Your task to perform on an android device: refresh tabs in the chrome app Image 0: 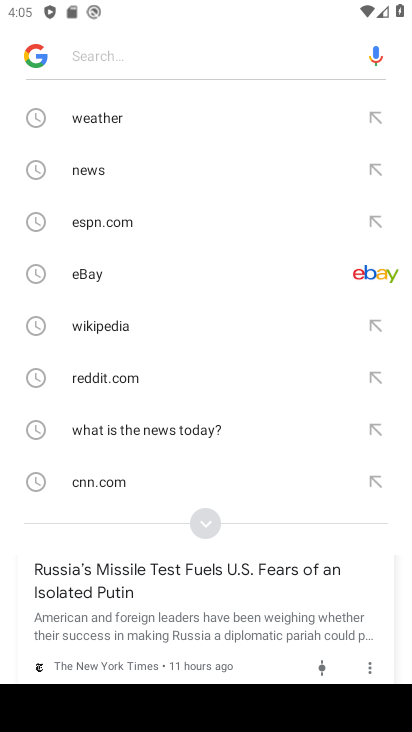
Step 0: press home button
Your task to perform on an android device: refresh tabs in the chrome app Image 1: 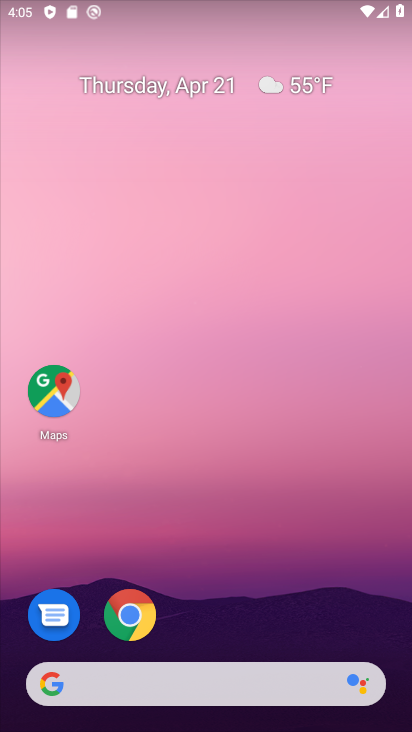
Step 1: click (116, 599)
Your task to perform on an android device: refresh tabs in the chrome app Image 2: 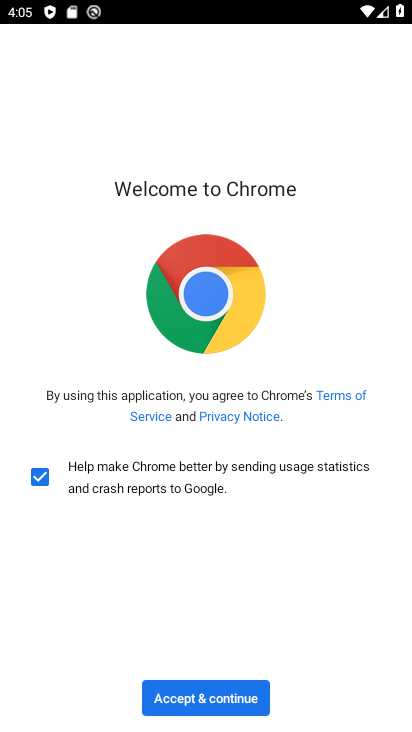
Step 2: click (206, 692)
Your task to perform on an android device: refresh tabs in the chrome app Image 3: 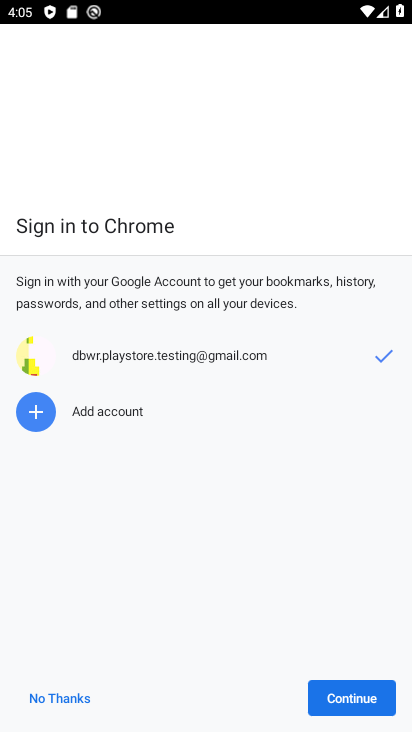
Step 3: click (354, 696)
Your task to perform on an android device: refresh tabs in the chrome app Image 4: 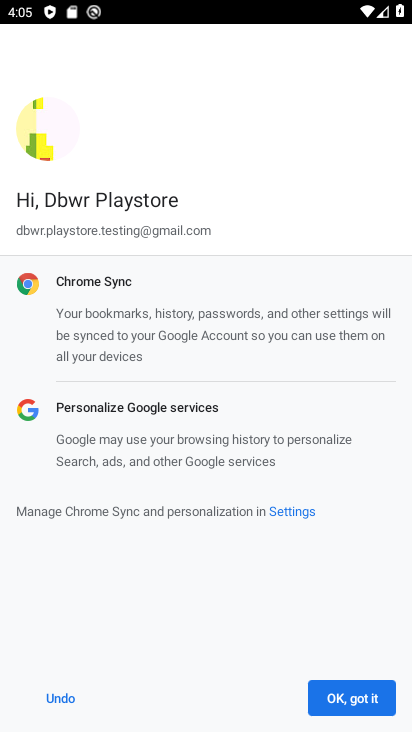
Step 4: click (359, 694)
Your task to perform on an android device: refresh tabs in the chrome app Image 5: 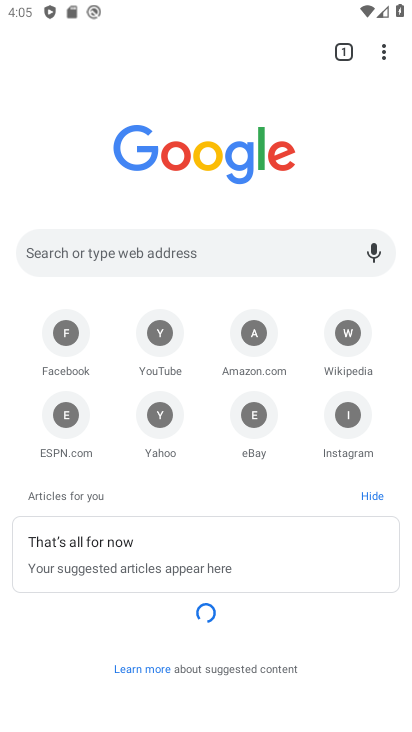
Step 5: click (378, 50)
Your task to perform on an android device: refresh tabs in the chrome app Image 6: 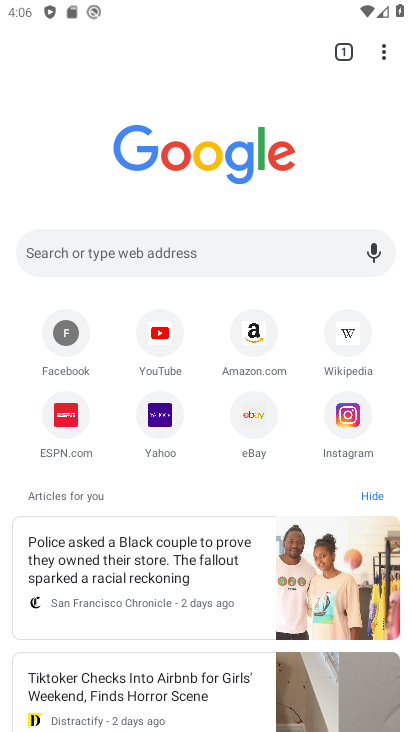
Step 6: task complete